Your task to perform on an android device: check battery use Image 0: 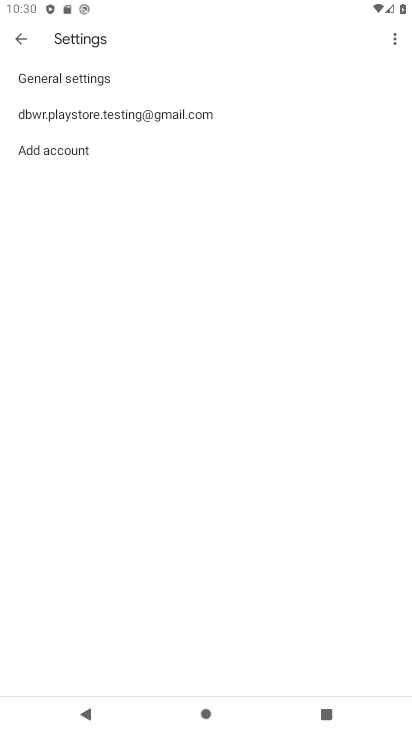
Step 0: press home button
Your task to perform on an android device: check battery use Image 1: 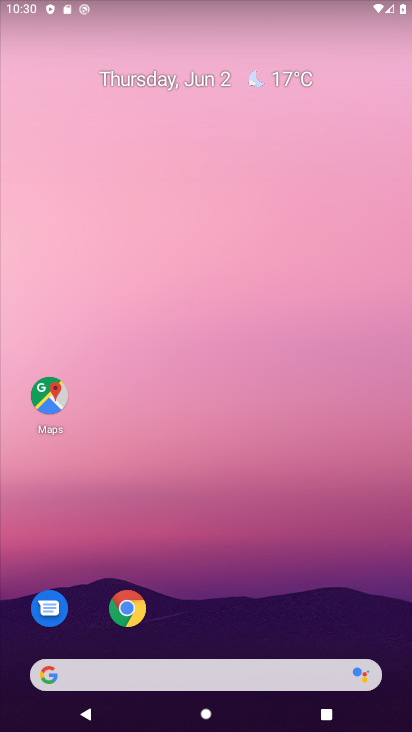
Step 1: drag from (255, 557) to (238, 3)
Your task to perform on an android device: check battery use Image 2: 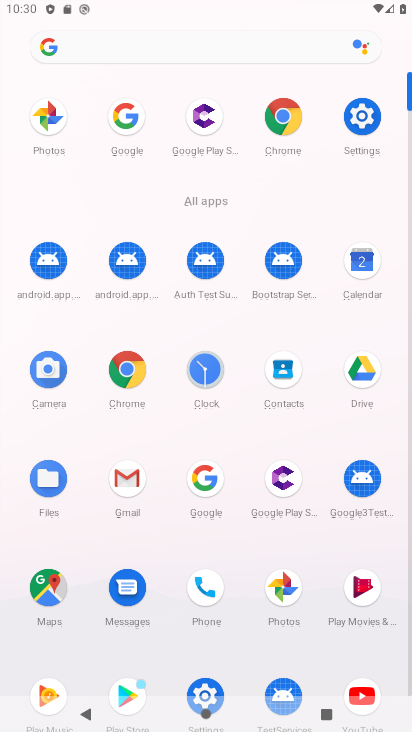
Step 2: click (355, 138)
Your task to perform on an android device: check battery use Image 3: 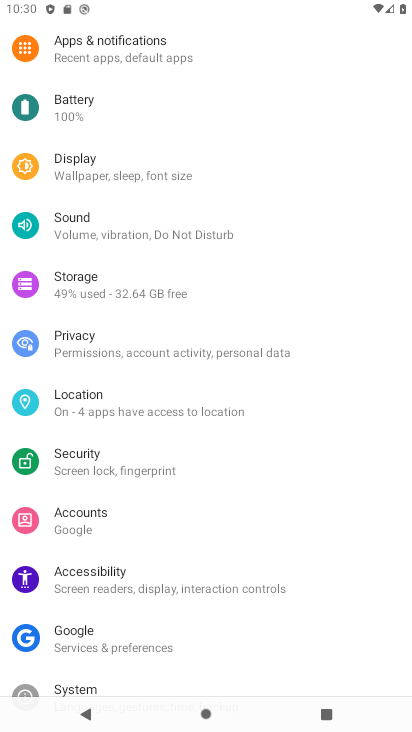
Step 3: click (141, 114)
Your task to perform on an android device: check battery use Image 4: 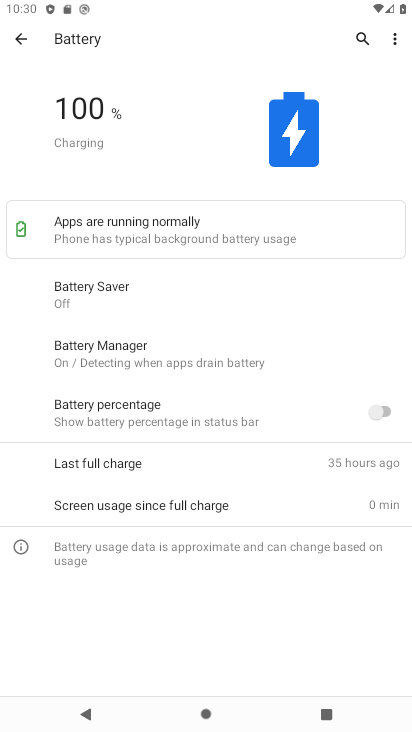
Step 4: click (394, 41)
Your task to perform on an android device: check battery use Image 5: 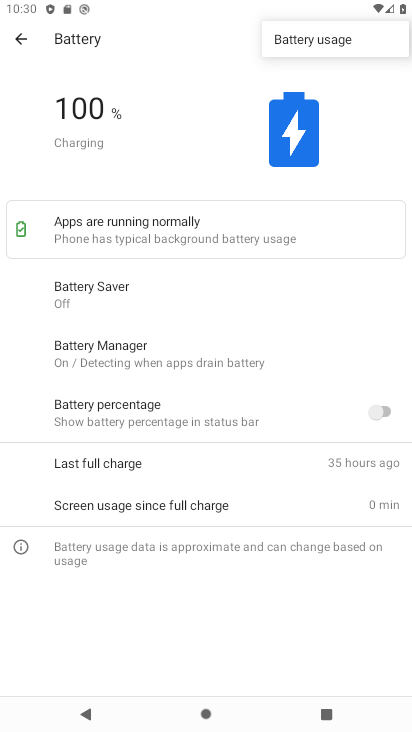
Step 5: click (311, 42)
Your task to perform on an android device: check battery use Image 6: 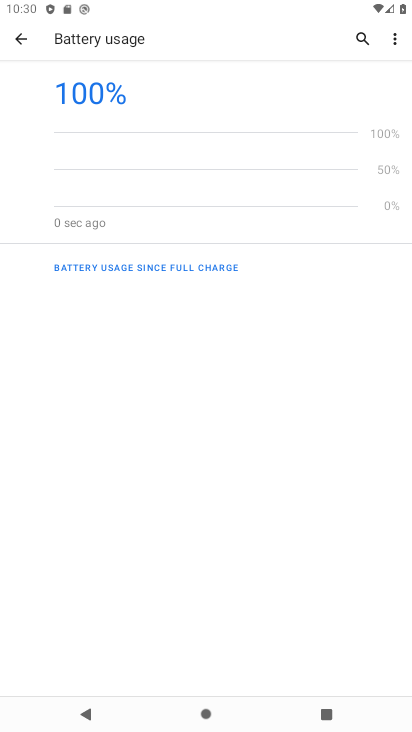
Step 6: task complete